Your task to perform on an android device: Go to Google Image 0: 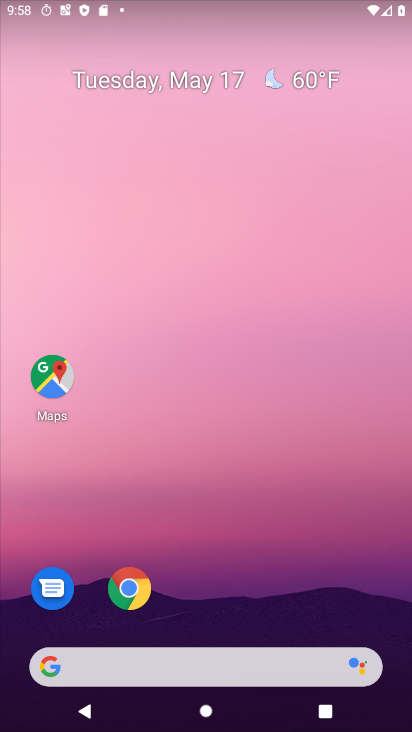
Step 0: drag from (298, 624) to (218, 4)
Your task to perform on an android device: Go to Google Image 1: 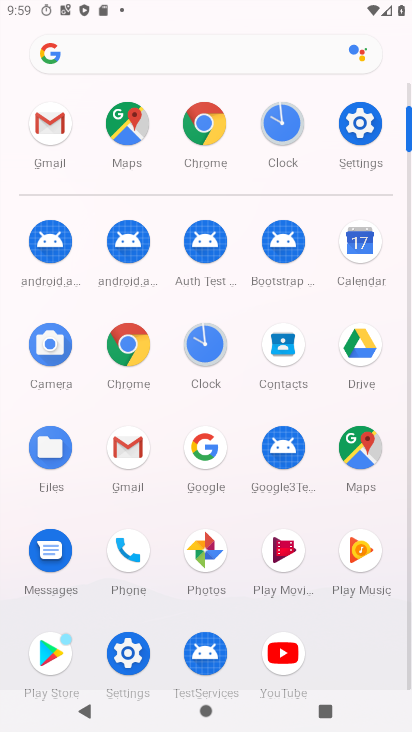
Step 1: click (199, 456)
Your task to perform on an android device: Go to Google Image 2: 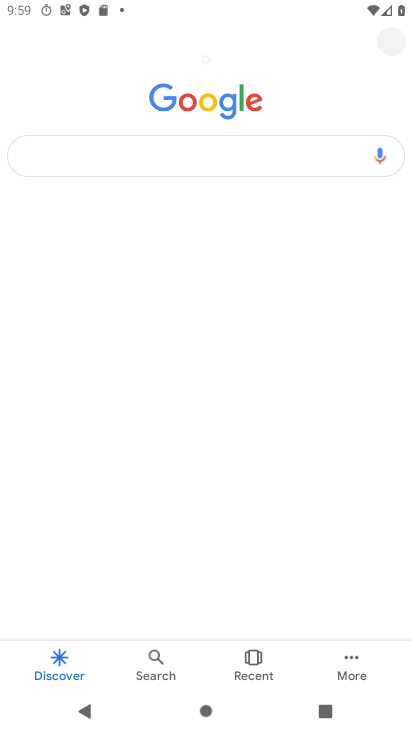
Step 2: click (232, 466)
Your task to perform on an android device: Go to Google Image 3: 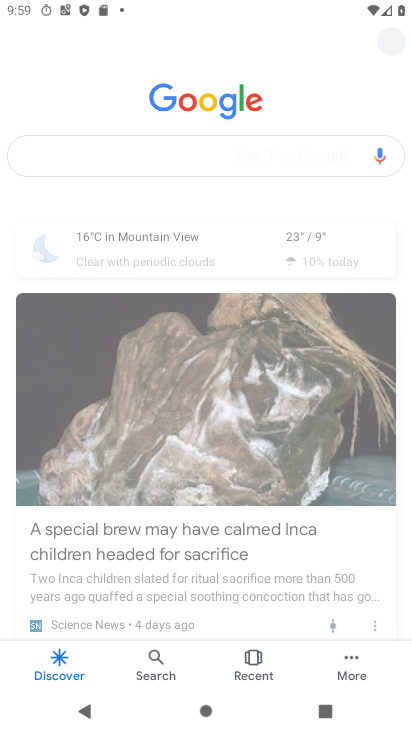
Step 3: click (203, 451)
Your task to perform on an android device: Go to Google Image 4: 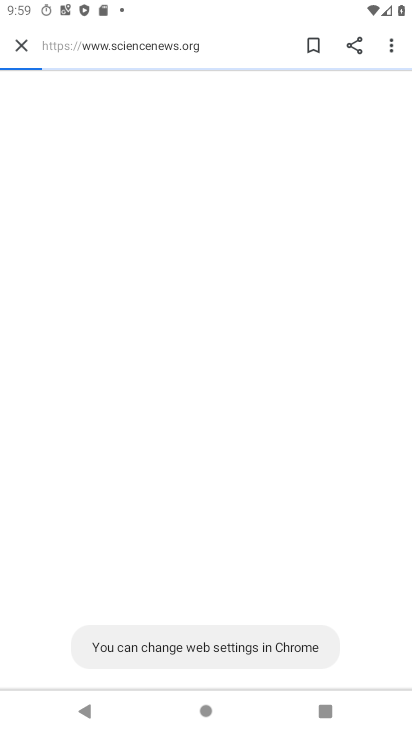
Step 4: click (192, 449)
Your task to perform on an android device: Go to Google Image 5: 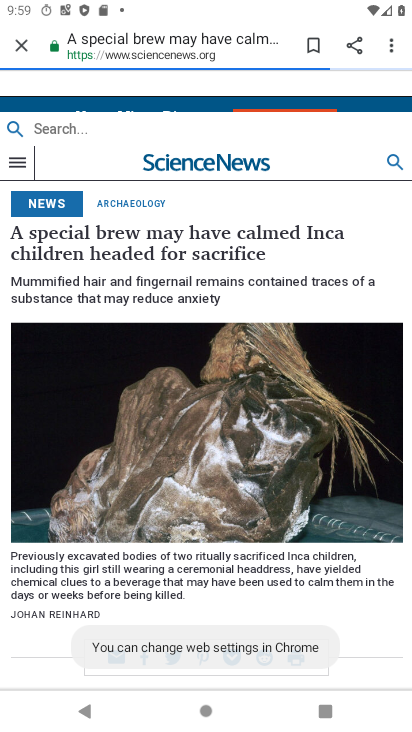
Step 5: task complete